Your task to perform on an android device: Go to CNN.com Image 0: 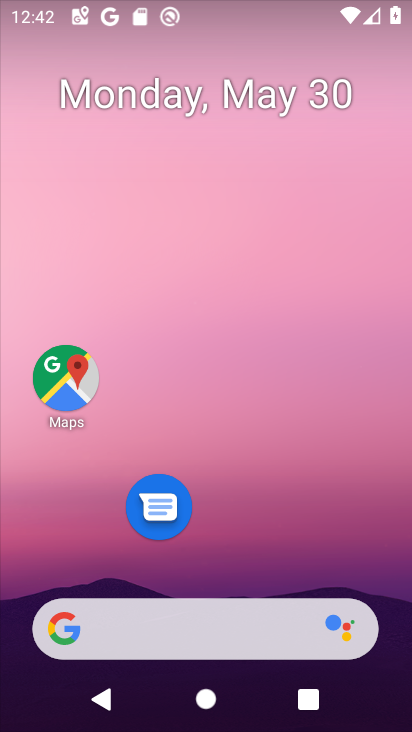
Step 0: drag from (260, 550) to (255, 53)
Your task to perform on an android device: Go to CNN.com Image 1: 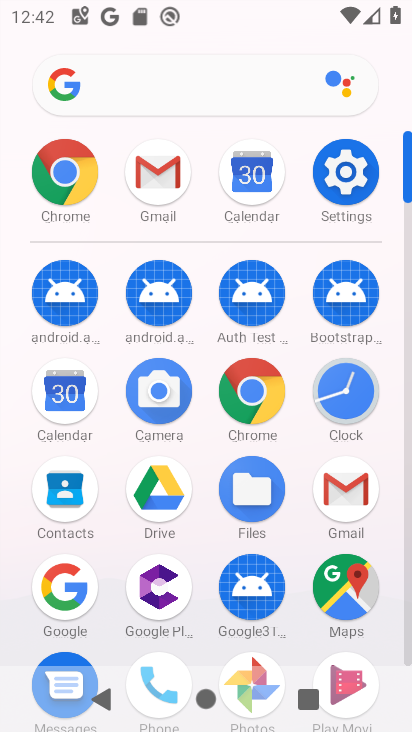
Step 1: click (249, 396)
Your task to perform on an android device: Go to CNN.com Image 2: 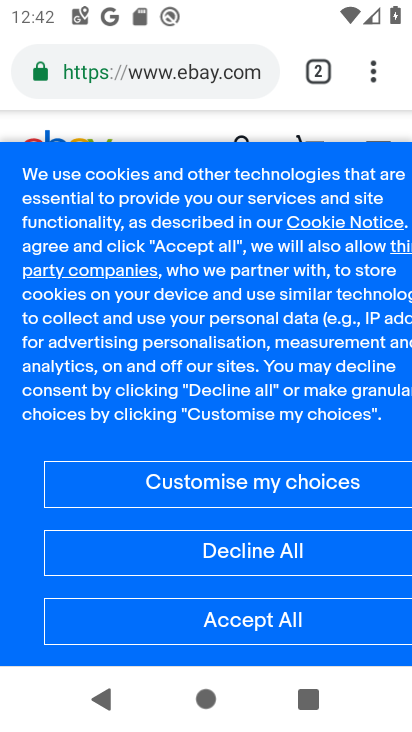
Step 2: click (145, 64)
Your task to perform on an android device: Go to CNN.com Image 3: 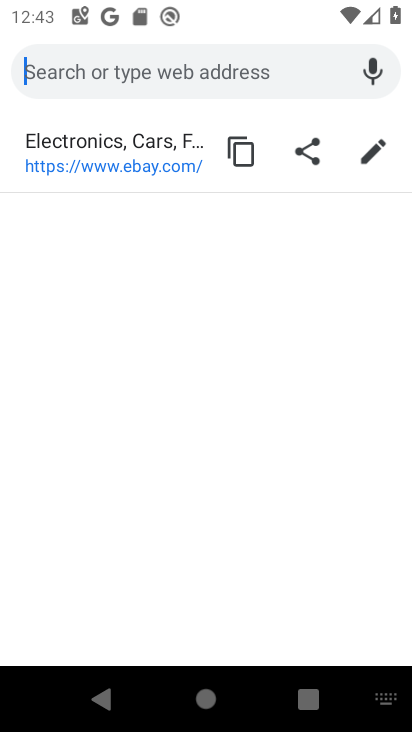
Step 3: type "CNN.com"
Your task to perform on an android device: Go to CNN.com Image 4: 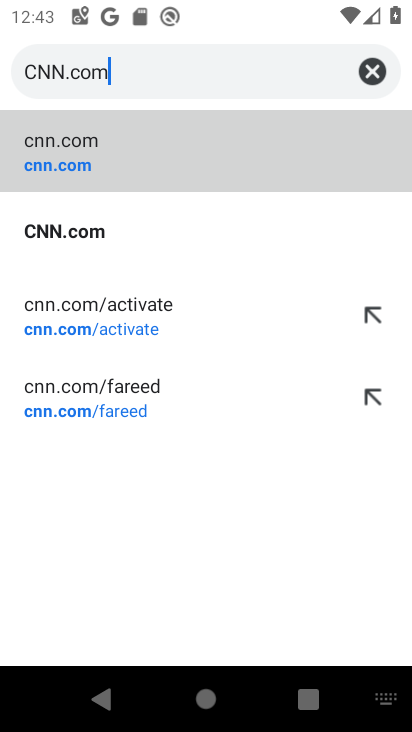
Step 4: click (43, 167)
Your task to perform on an android device: Go to CNN.com Image 5: 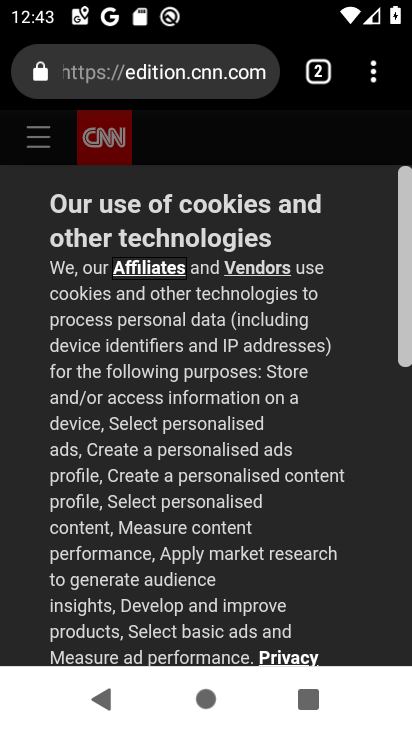
Step 5: task complete